Your task to perform on an android device: turn on javascript in the chrome app Image 0: 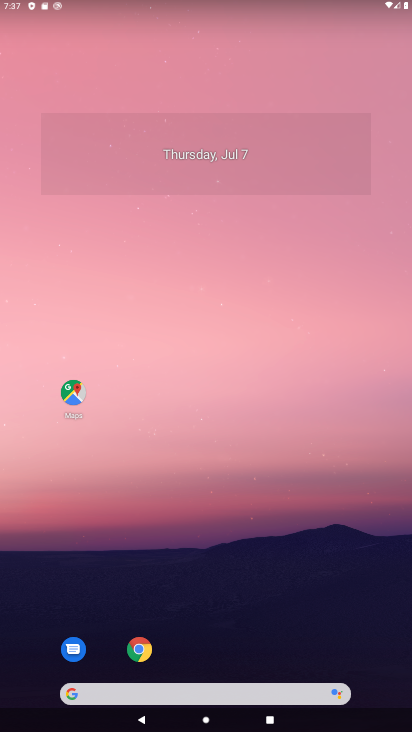
Step 0: drag from (201, 588) to (285, 1)
Your task to perform on an android device: turn on javascript in the chrome app Image 1: 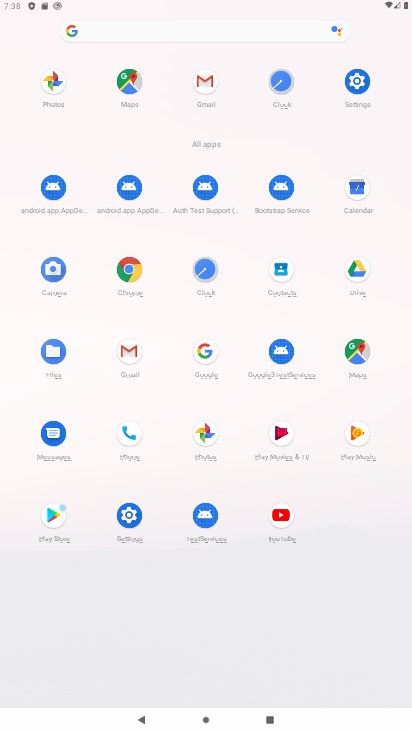
Step 1: click (128, 279)
Your task to perform on an android device: turn on javascript in the chrome app Image 2: 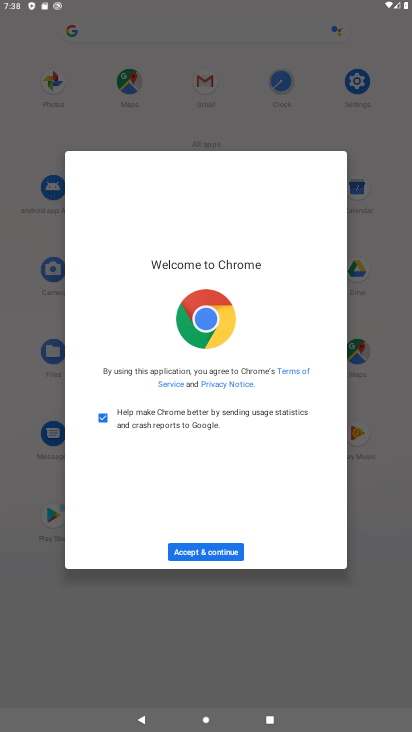
Step 2: click (224, 554)
Your task to perform on an android device: turn on javascript in the chrome app Image 3: 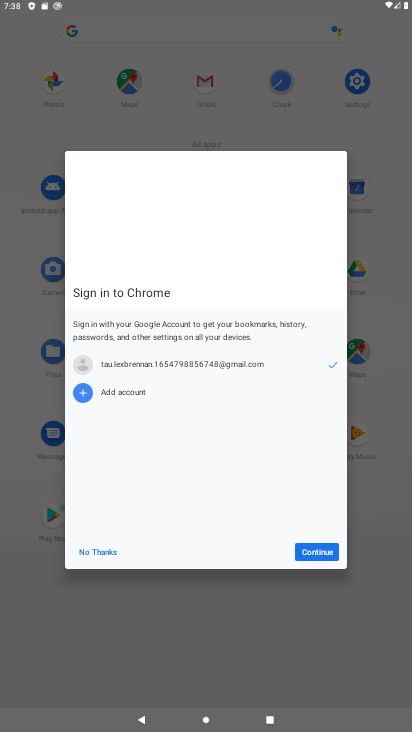
Step 3: click (315, 550)
Your task to perform on an android device: turn on javascript in the chrome app Image 4: 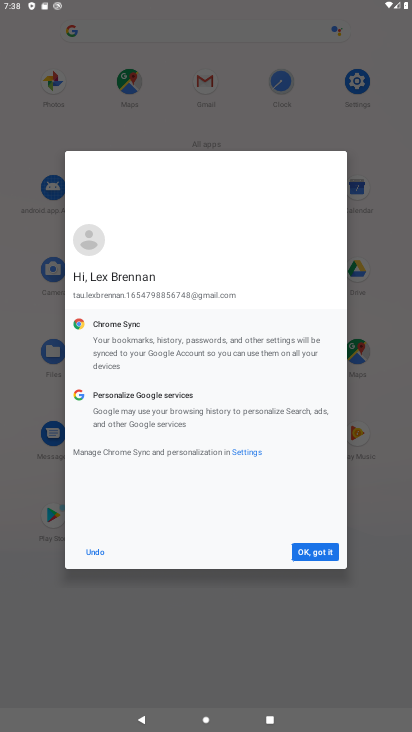
Step 4: click (315, 550)
Your task to perform on an android device: turn on javascript in the chrome app Image 5: 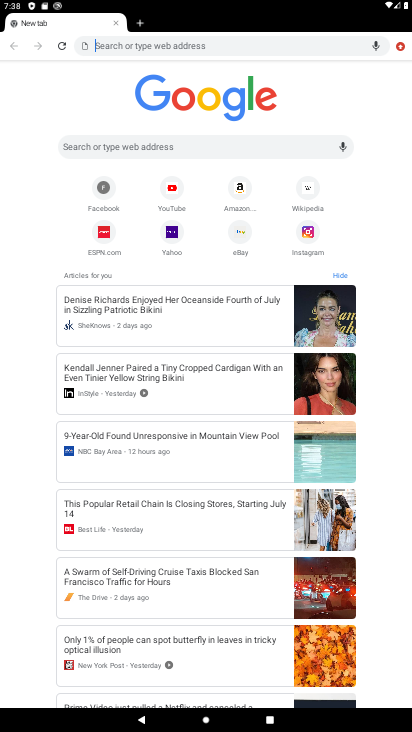
Step 5: click (401, 51)
Your task to perform on an android device: turn on javascript in the chrome app Image 6: 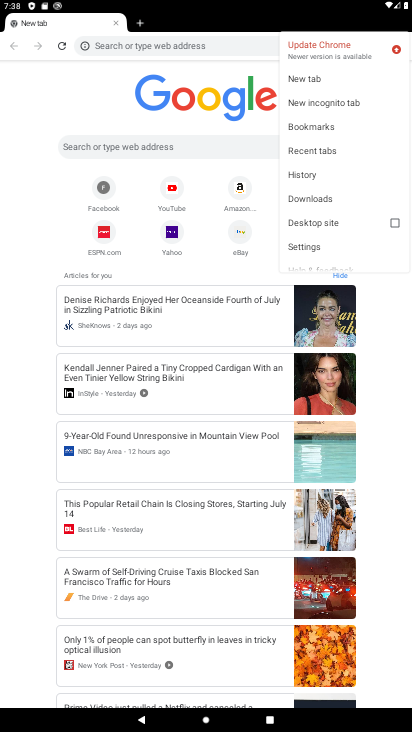
Step 6: click (311, 242)
Your task to perform on an android device: turn on javascript in the chrome app Image 7: 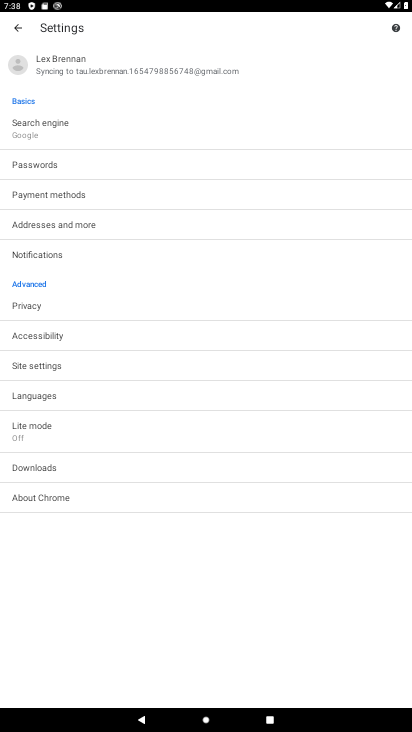
Step 7: click (51, 364)
Your task to perform on an android device: turn on javascript in the chrome app Image 8: 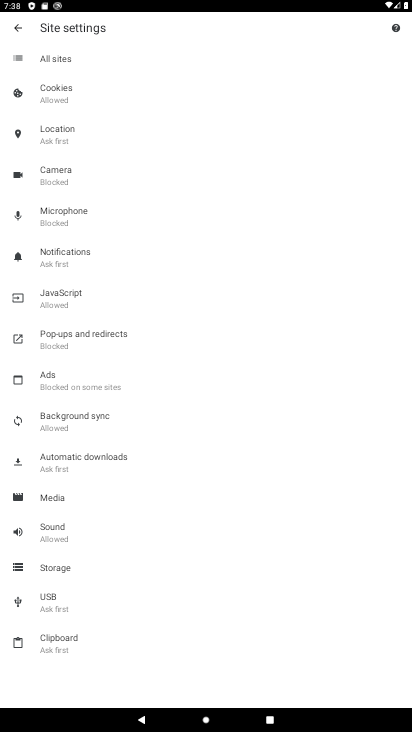
Step 8: click (84, 296)
Your task to perform on an android device: turn on javascript in the chrome app Image 9: 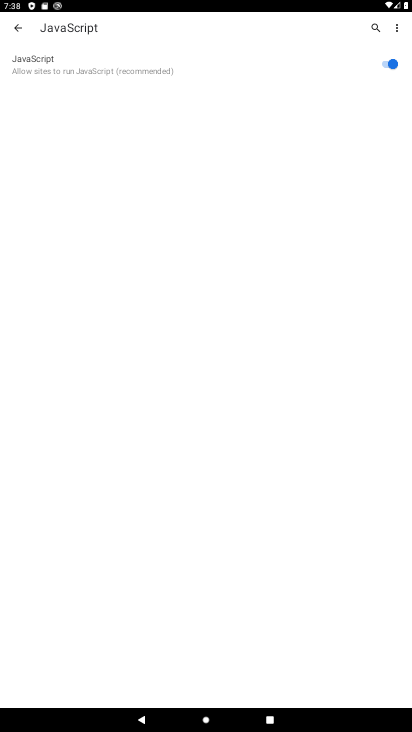
Step 9: task complete